Your task to perform on an android device: change the clock display to analog Image 0: 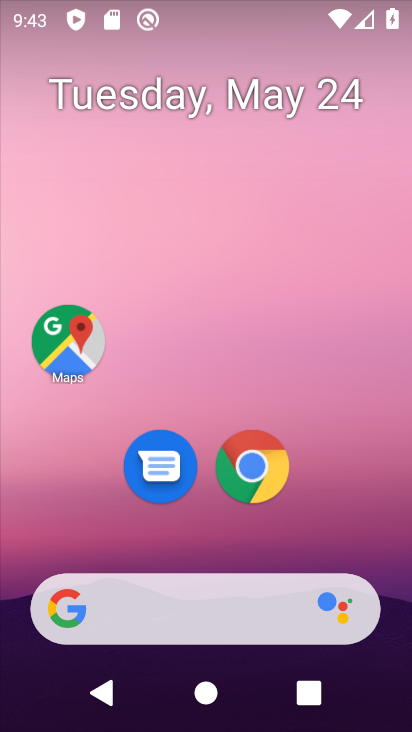
Step 0: drag from (195, 545) to (172, 0)
Your task to perform on an android device: change the clock display to analog Image 1: 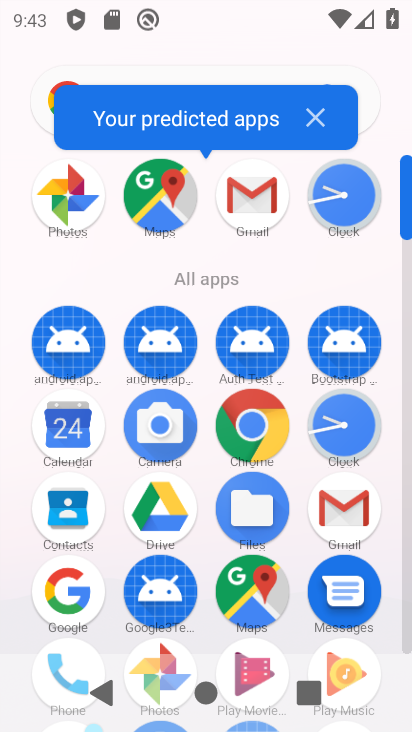
Step 1: click (350, 432)
Your task to perform on an android device: change the clock display to analog Image 2: 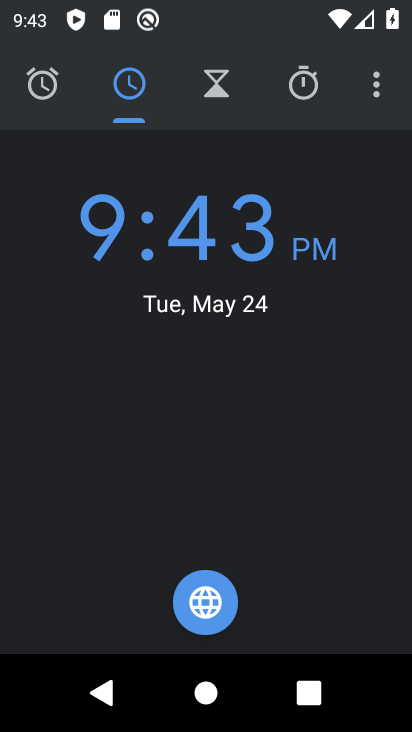
Step 2: click (374, 96)
Your task to perform on an android device: change the clock display to analog Image 3: 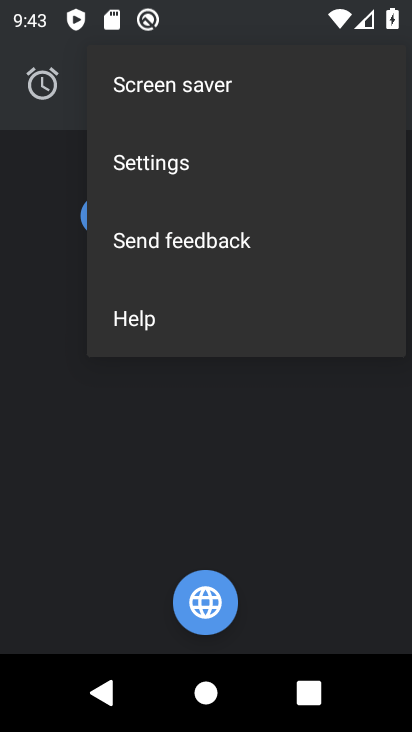
Step 3: click (149, 166)
Your task to perform on an android device: change the clock display to analog Image 4: 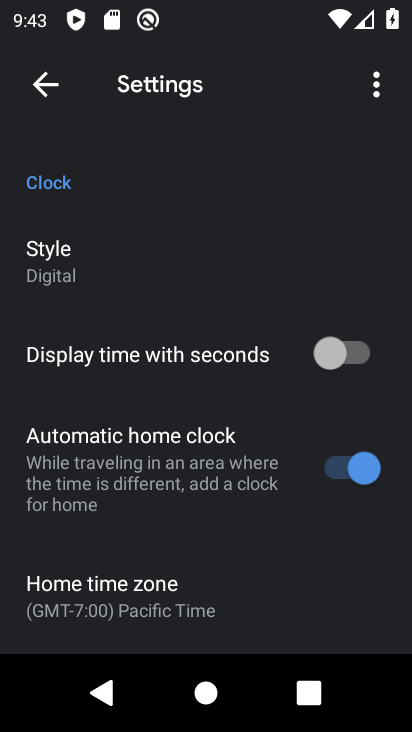
Step 4: click (106, 269)
Your task to perform on an android device: change the clock display to analog Image 5: 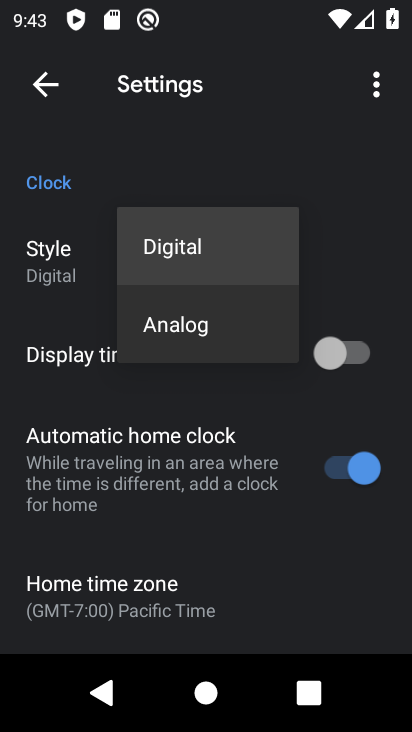
Step 5: click (172, 324)
Your task to perform on an android device: change the clock display to analog Image 6: 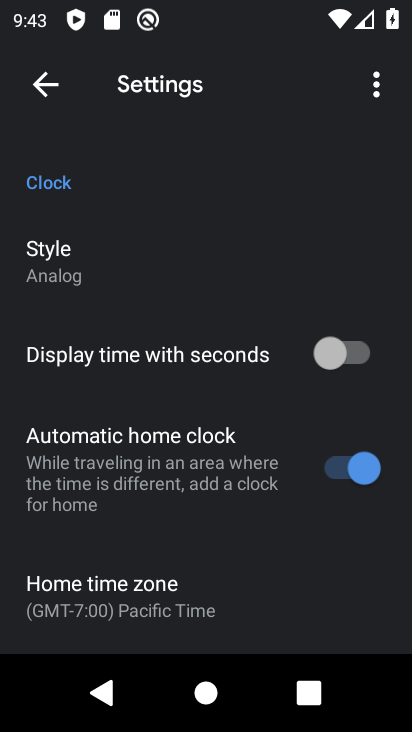
Step 6: task complete